Your task to perform on an android device: open app "Speedtest by Ookla" (install if not already installed), go to login, and select forgot password Image 0: 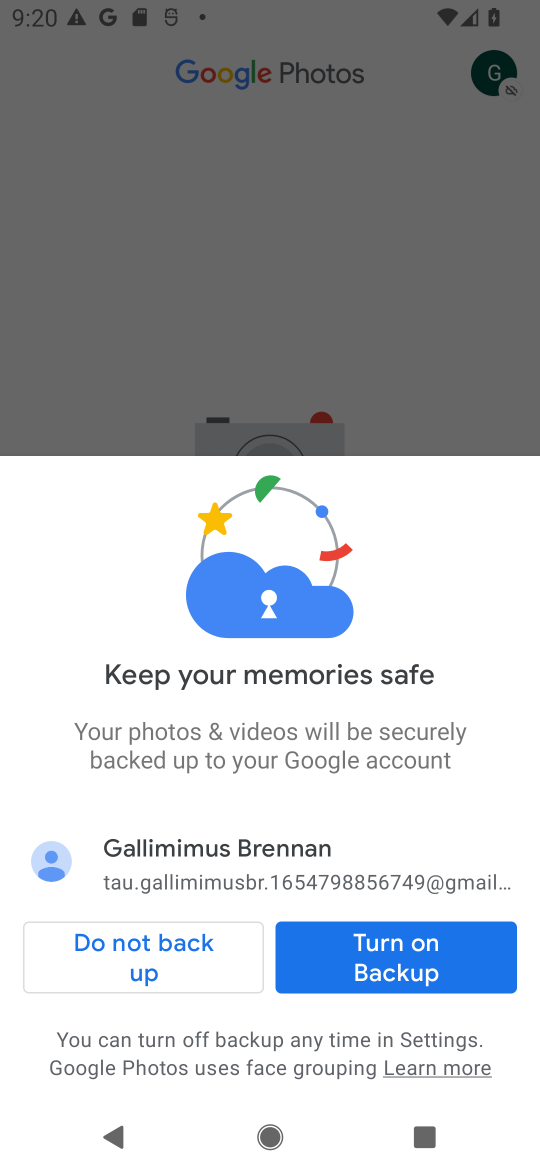
Step 0: press home button
Your task to perform on an android device: open app "Speedtest by Ookla" (install if not already installed), go to login, and select forgot password Image 1: 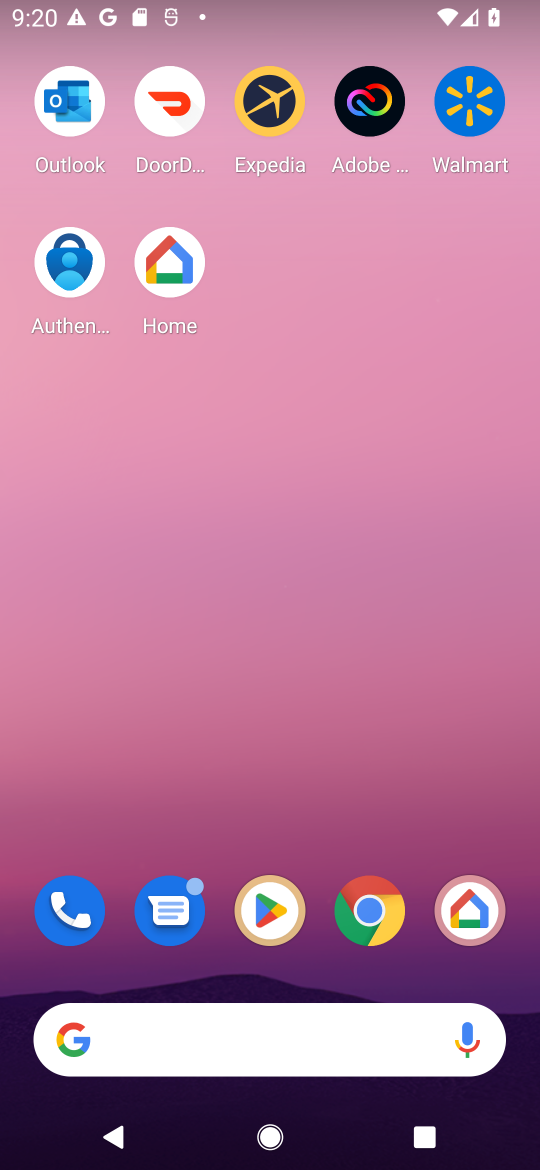
Step 1: click (246, 917)
Your task to perform on an android device: open app "Speedtest by Ookla" (install if not already installed), go to login, and select forgot password Image 2: 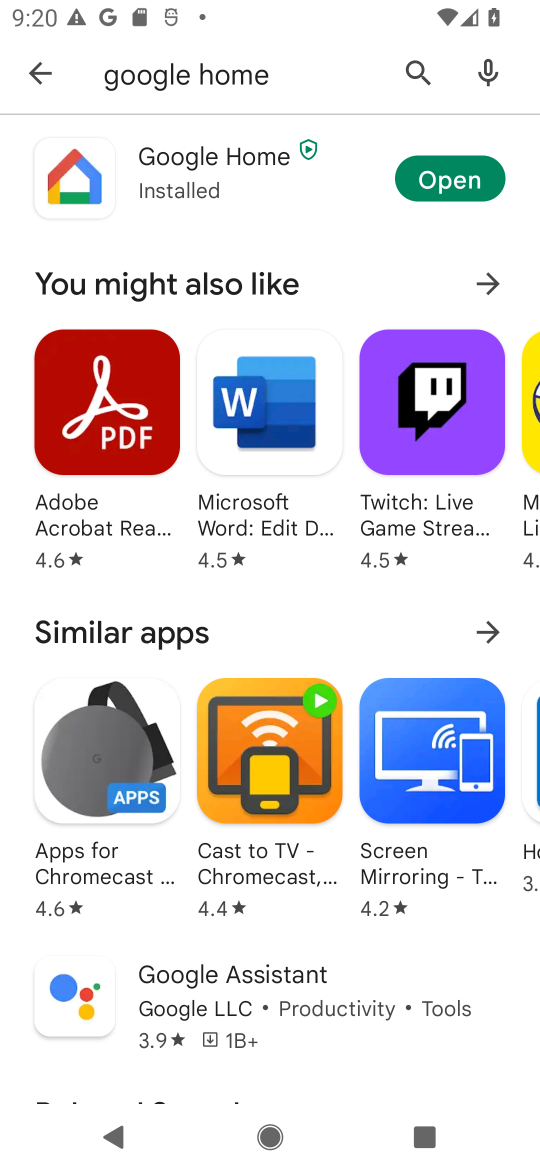
Step 2: click (415, 70)
Your task to perform on an android device: open app "Speedtest by Ookla" (install if not already installed), go to login, and select forgot password Image 3: 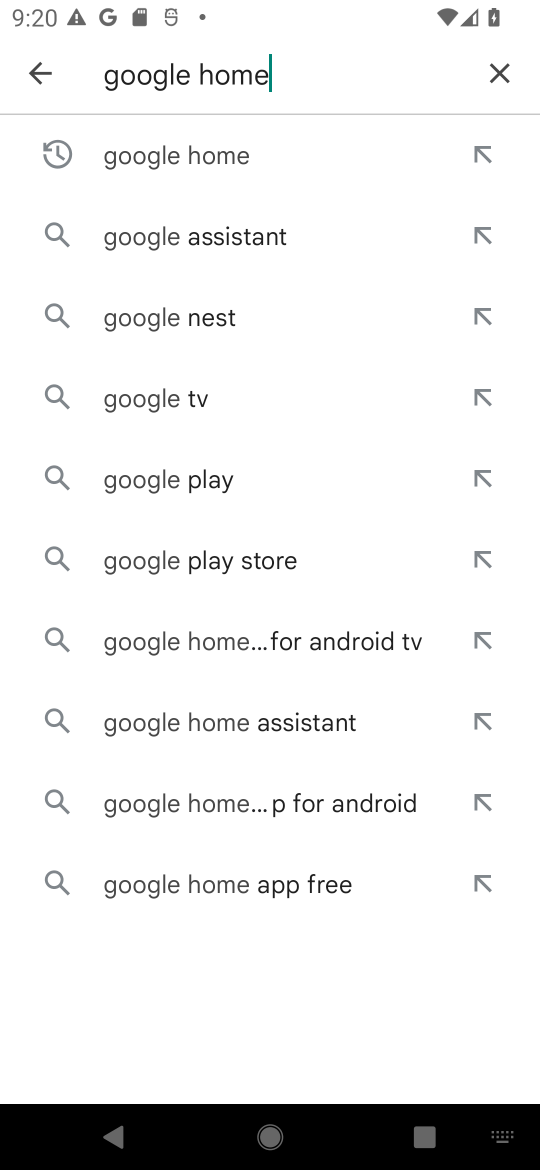
Step 3: click (495, 71)
Your task to perform on an android device: open app "Speedtest by Ookla" (install if not already installed), go to login, and select forgot password Image 4: 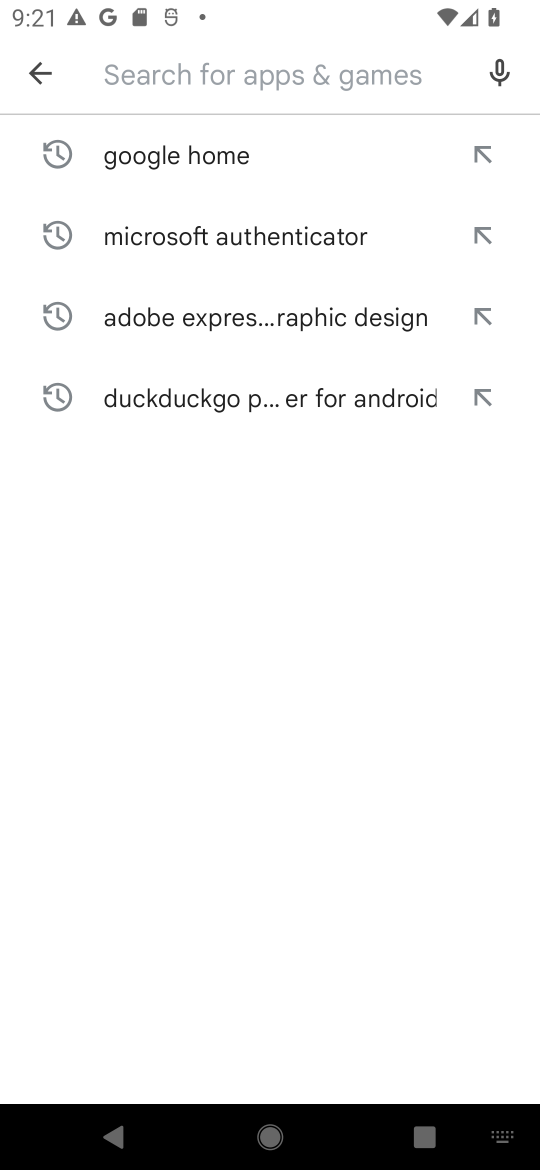
Step 4: type "Speedtest by Ookla"
Your task to perform on an android device: open app "Speedtest by Ookla" (install if not already installed), go to login, and select forgot password Image 5: 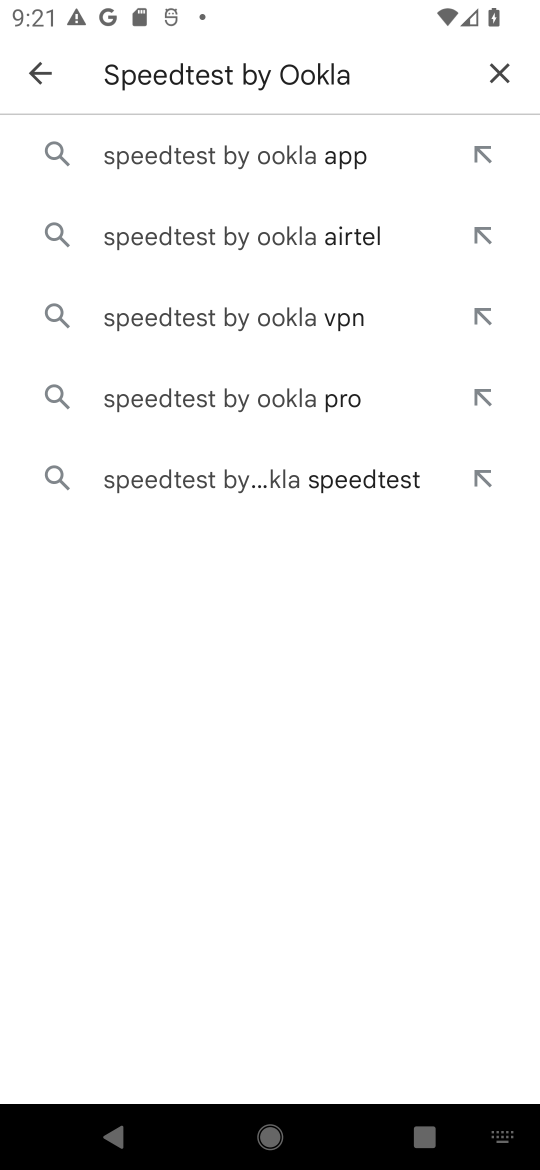
Step 5: click (347, 164)
Your task to perform on an android device: open app "Speedtest by Ookla" (install if not already installed), go to login, and select forgot password Image 6: 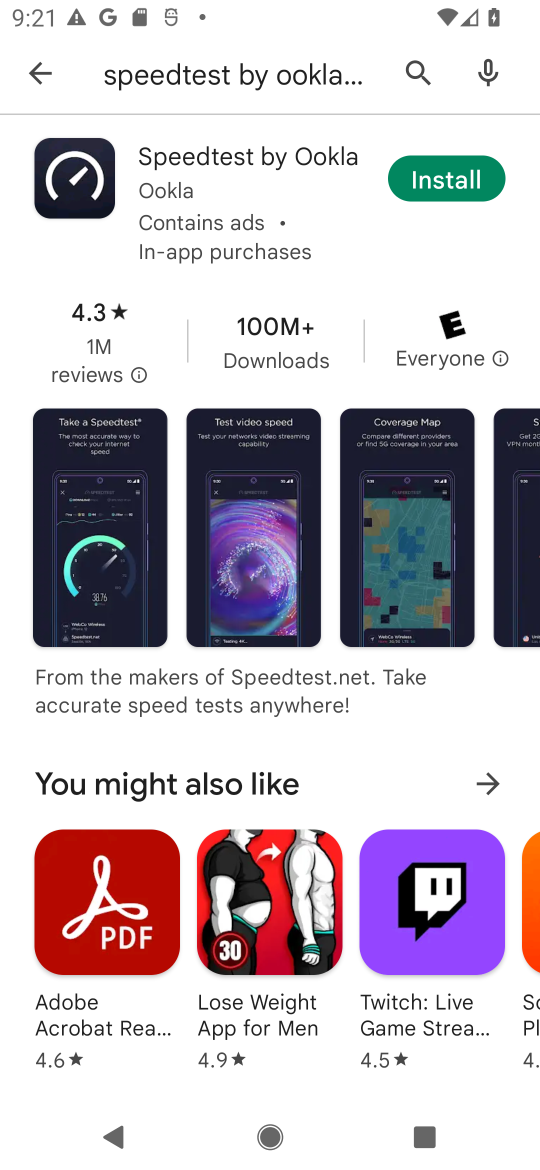
Step 6: click (426, 180)
Your task to perform on an android device: open app "Speedtest by Ookla" (install if not already installed), go to login, and select forgot password Image 7: 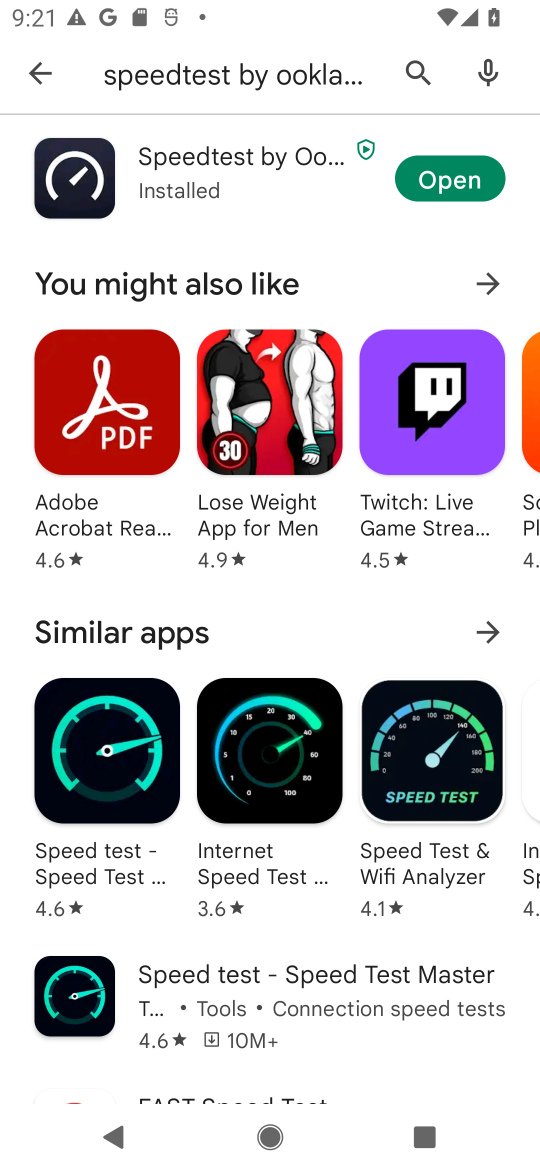
Step 7: click (489, 167)
Your task to perform on an android device: open app "Speedtest by Ookla" (install if not already installed), go to login, and select forgot password Image 8: 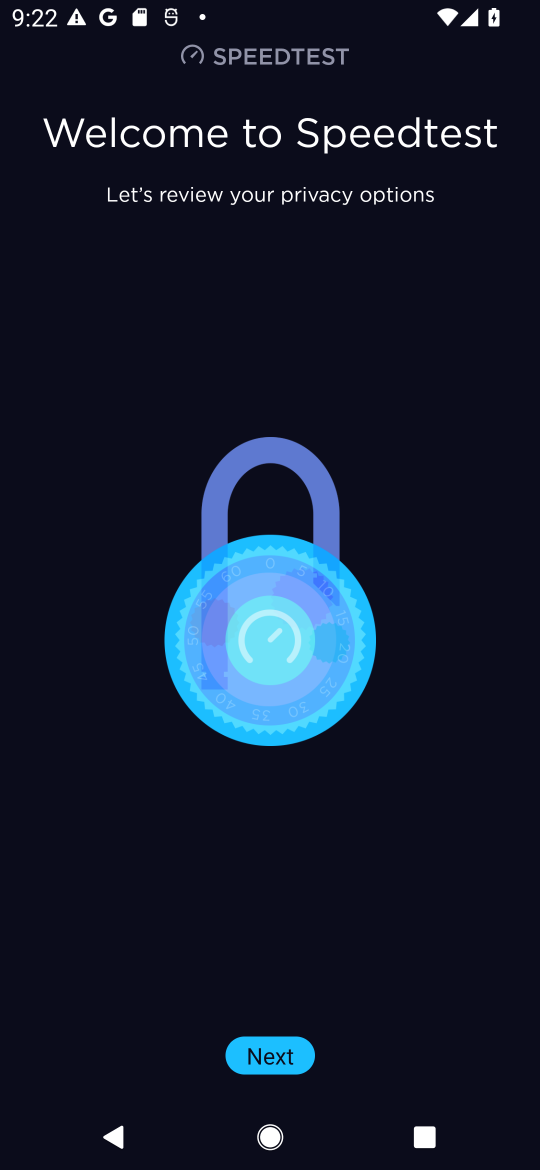
Step 8: task complete